Your task to perform on an android device: turn off wifi Image 0: 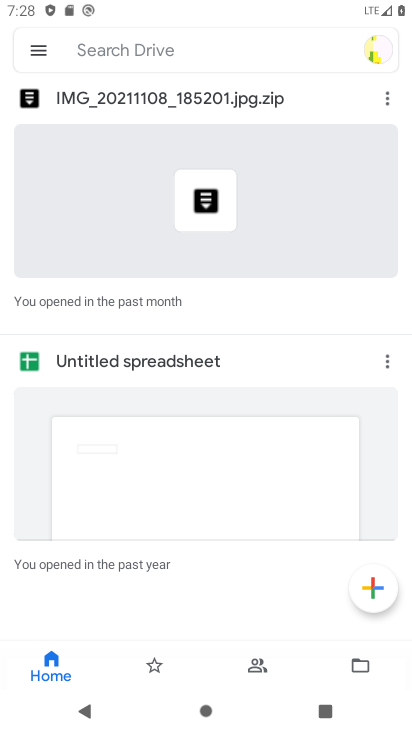
Step 0: press home button
Your task to perform on an android device: turn off wifi Image 1: 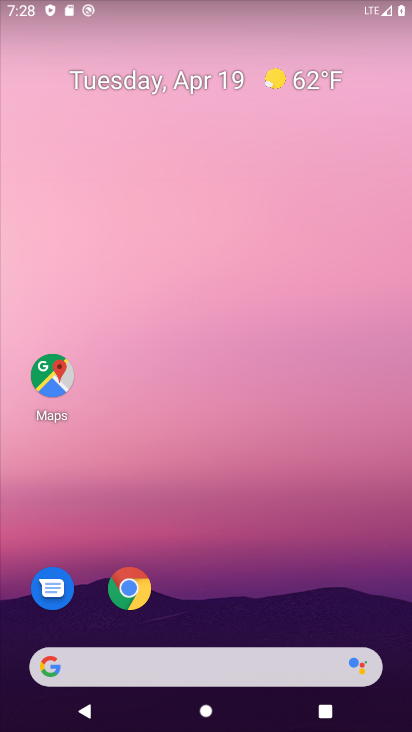
Step 1: drag from (229, 476) to (193, 11)
Your task to perform on an android device: turn off wifi Image 2: 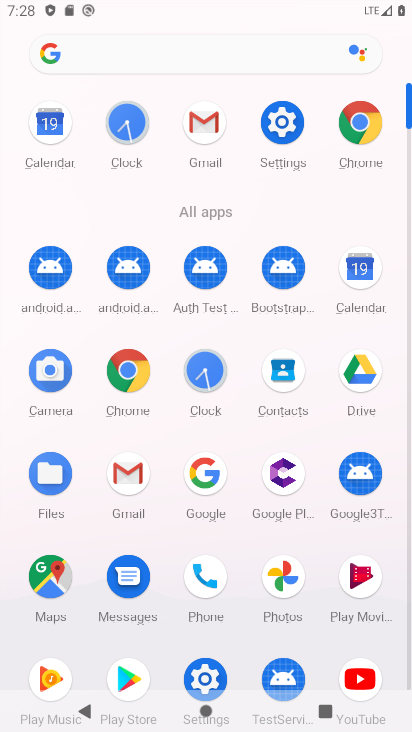
Step 2: click (280, 129)
Your task to perform on an android device: turn off wifi Image 3: 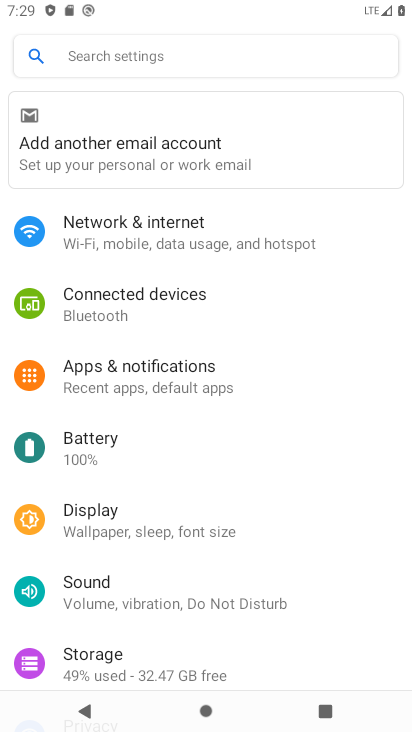
Step 3: click (114, 226)
Your task to perform on an android device: turn off wifi Image 4: 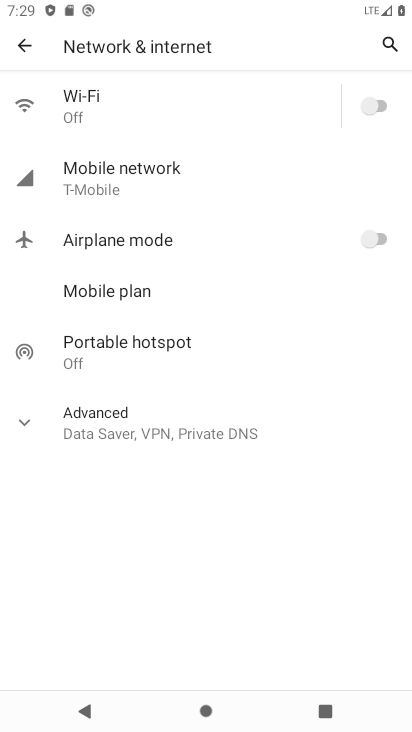
Step 4: task complete